Your task to perform on an android device: Do I have any events this weekend? Image 0: 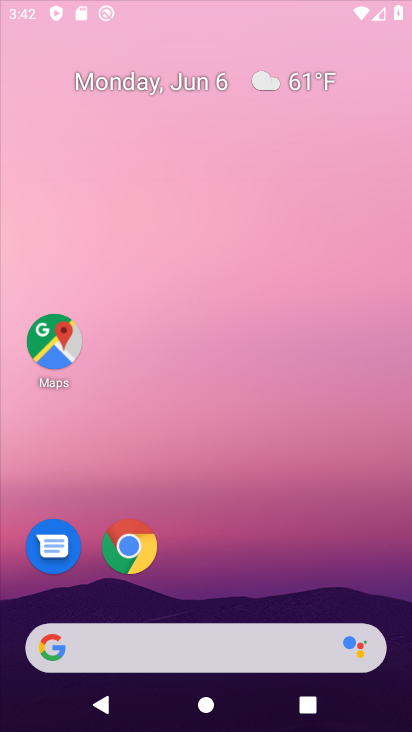
Step 0: click (245, 108)
Your task to perform on an android device: Do I have any events this weekend? Image 1: 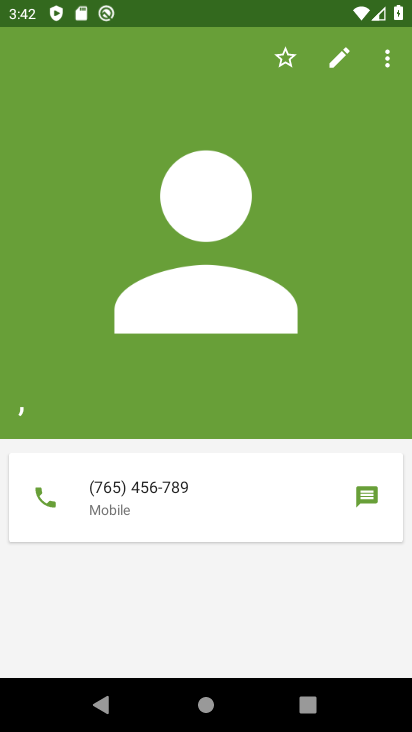
Step 1: press home button
Your task to perform on an android device: Do I have any events this weekend? Image 2: 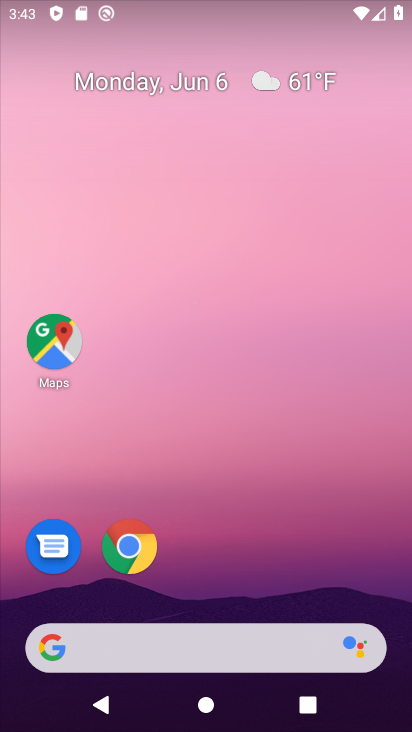
Step 2: drag from (254, 728) to (254, 108)
Your task to perform on an android device: Do I have any events this weekend? Image 3: 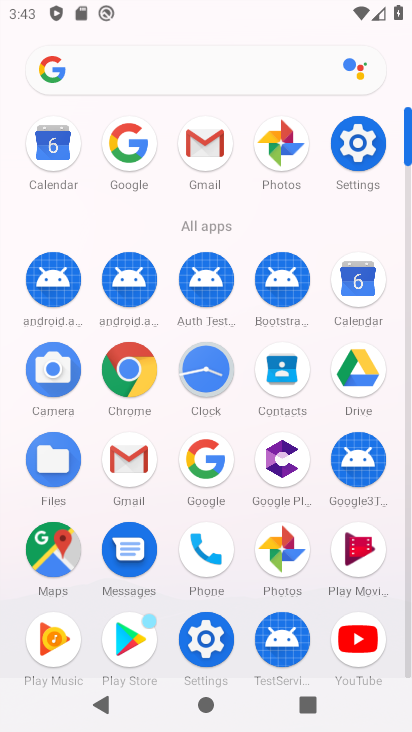
Step 3: click (362, 281)
Your task to perform on an android device: Do I have any events this weekend? Image 4: 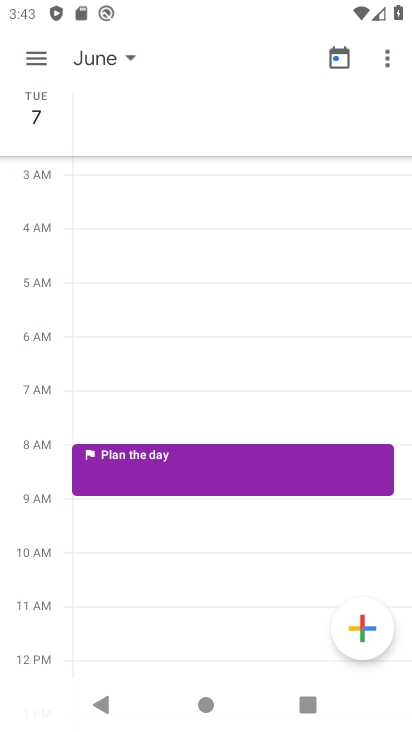
Step 4: click (32, 54)
Your task to perform on an android device: Do I have any events this weekend? Image 5: 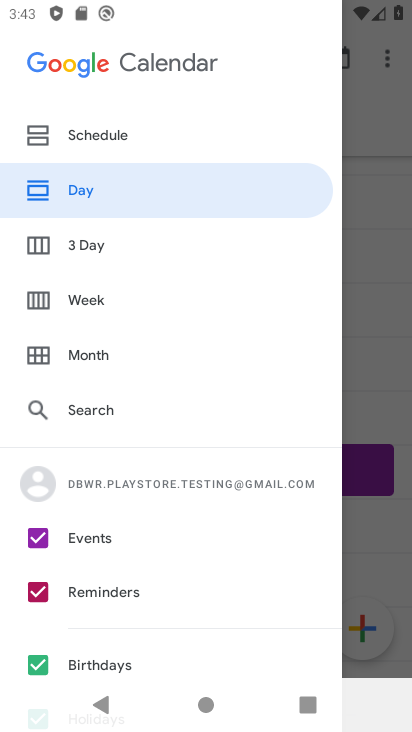
Step 5: drag from (142, 654) to (143, 327)
Your task to perform on an android device: Do I have any events this weekend? Image 6: 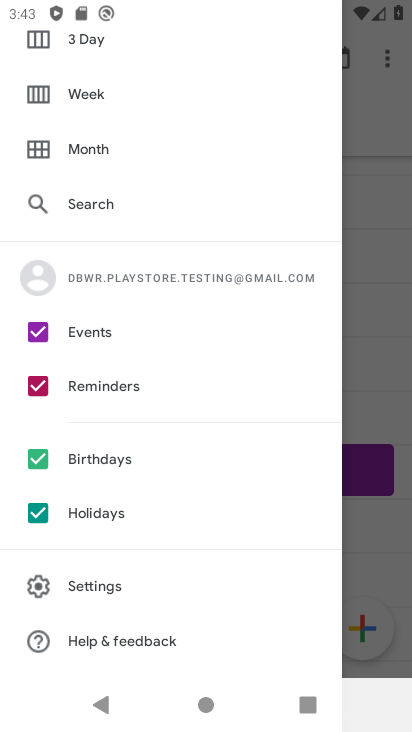
Step 6: click (37, 513)
Your task to perform on an android device: Do I have any events this weekend? Image 7: 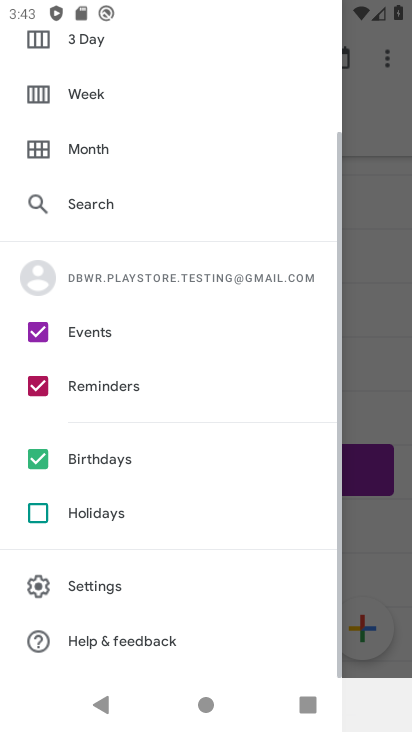
Step 7: click (40, 456)
Your task to perform on an android device: Do I have any events this weekend? Image 8: 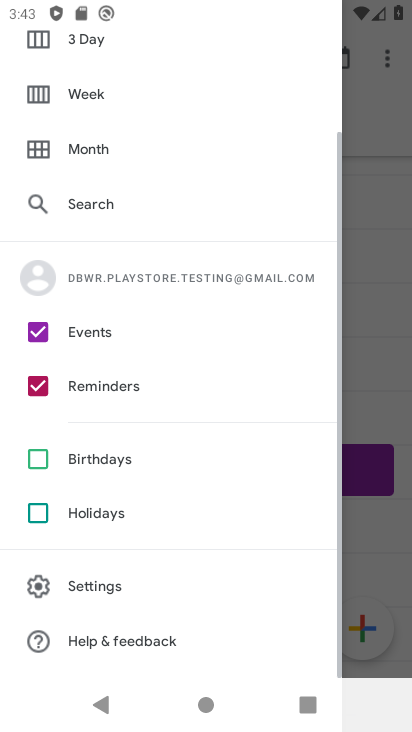
Step 8: click (41, 384)
Your task to perform on an android device: Do I have any events this weekend? Image 9: 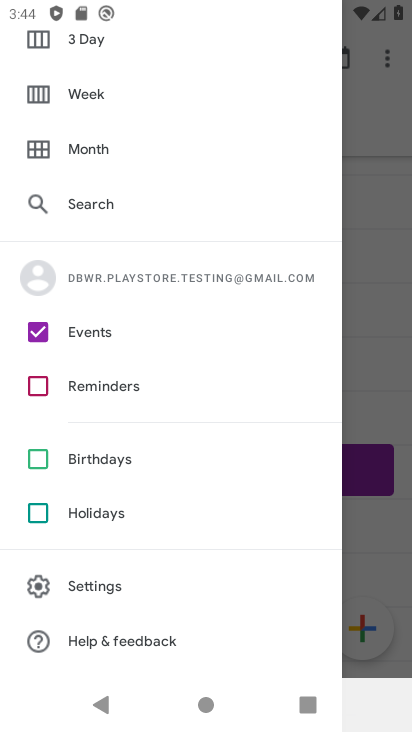
Step 9: click (84, 90)
Your task to perform on an android device: Do I have any events this weekend? Image 10: 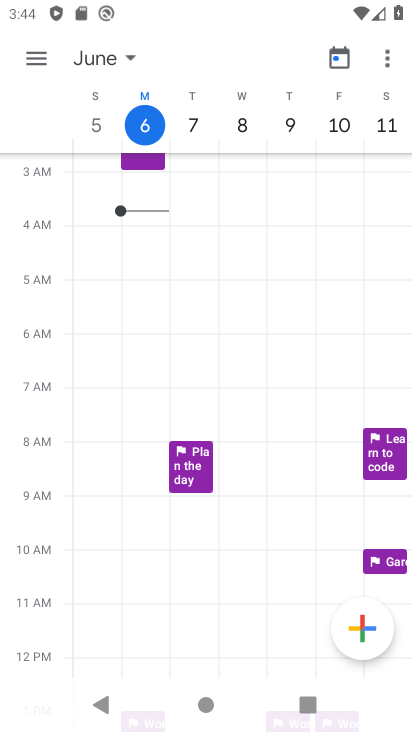
Step 10: click (386, 111)
Your task to perform on an android device: Do I have any events this weekend? Image 11: 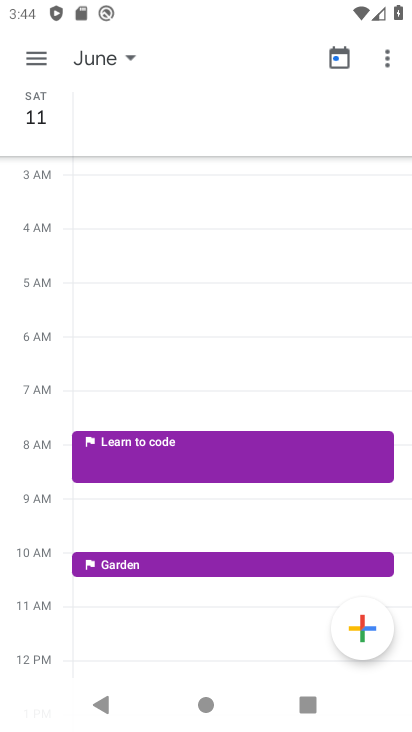
Step 11: task complete